Your task to perform on an android device: change the clock display to show seconds Image 0: 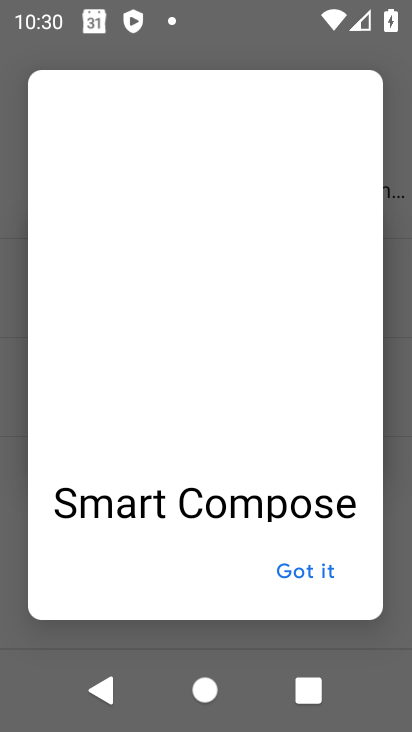
Step 0: press back button
Your task to perform on an android device: change the clock display to show seconds Image 1: 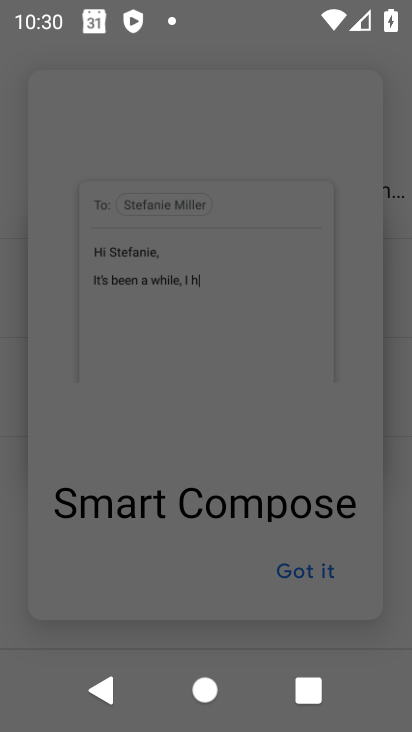
Step 1: press home button
Your task to perform on an android device: change the clock display to show seconds Image 2: 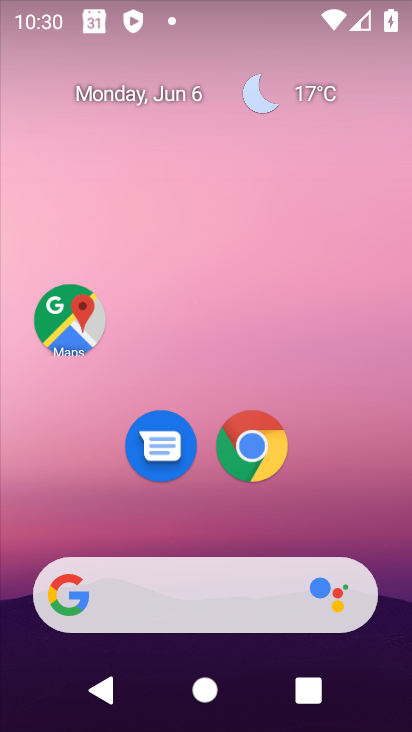
Step 2: drag from (397, 637) to (364, 71)
Your task to perform on an android device: change the clock display to show seconds Image 3: 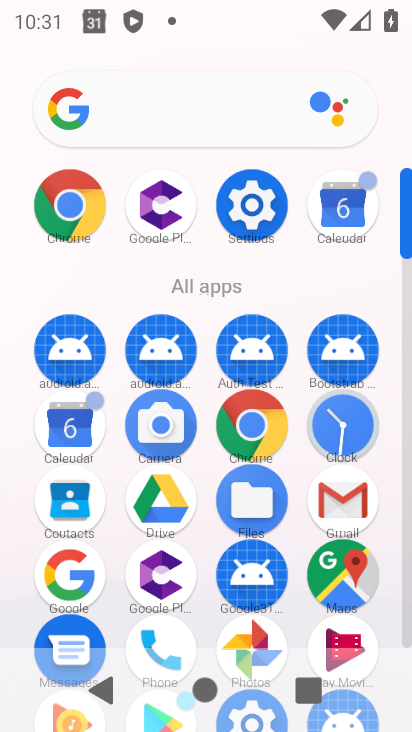
Step 3: click (341, 419)
Your task to perform on an android device: change the clock display to show seconds Image 4: 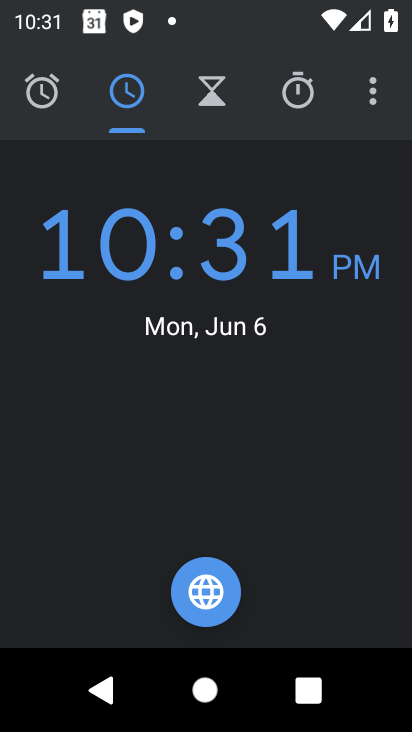
Step 4: drag from (371, 90) to (125, 182)
Your task to perform on an android device: change the clock display to show seconds Image 5: 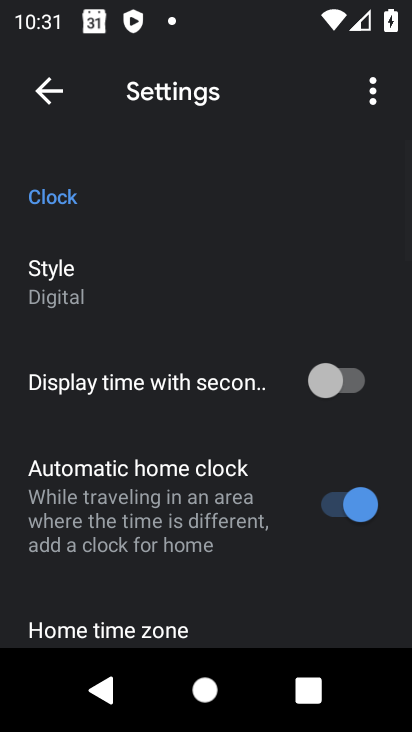
Step 5: click (343, 380)
Your task to perform on an android device: change the clock display to show seconds Image 6: 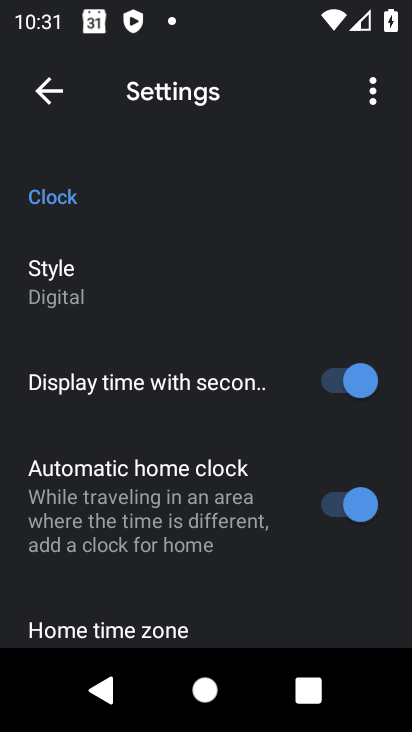
Step 6: task complete